Your task to perform on an android device: turn vacation reply on in the gmail app Image 0: 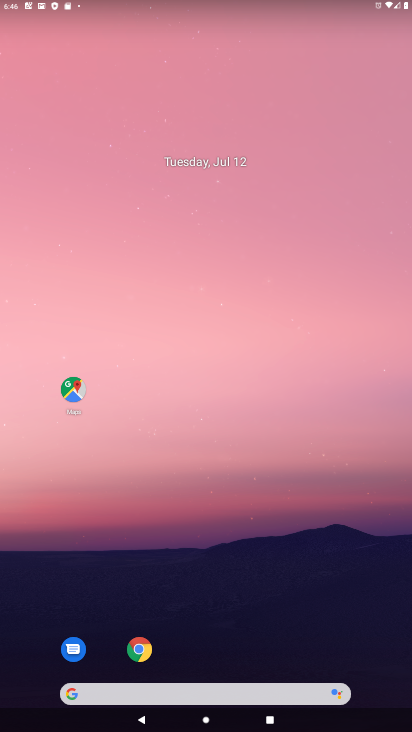
Step 0: drag from (182, 693) to (279, 164)
Your task to perform on an android device: turn vacation reply on in the gmail app Image 1: 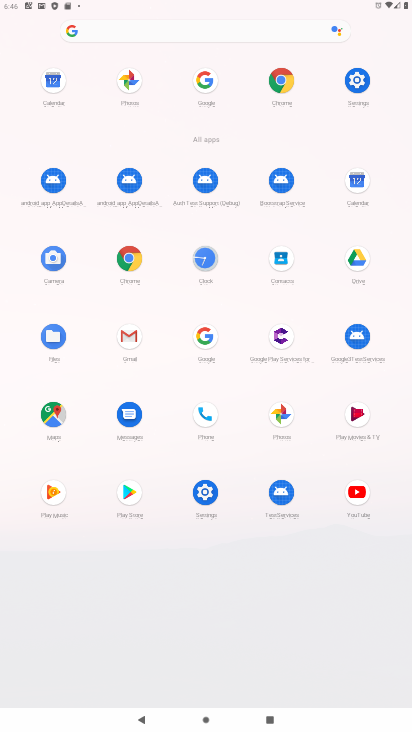
Step 1: click (129, 335)
Your task to perform on an android device: turn vacation reply on in the gmail app Image 2: 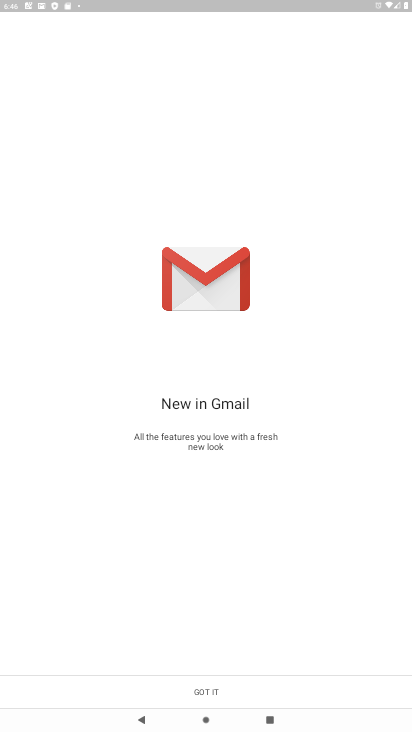
Step 2: click (207, 694)
Your task to perform on an android device: turn vacation reply on in the gmail app Image 3: 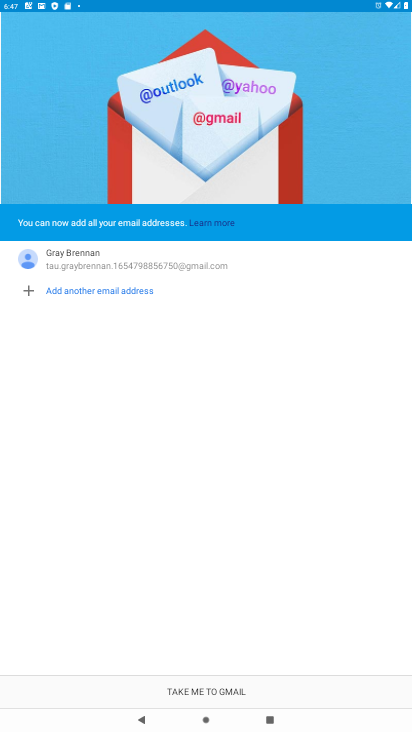
Step 3: click (219, 689)
Your task to perform on an android device: turn vacation reply on in the gmail app Image 4: 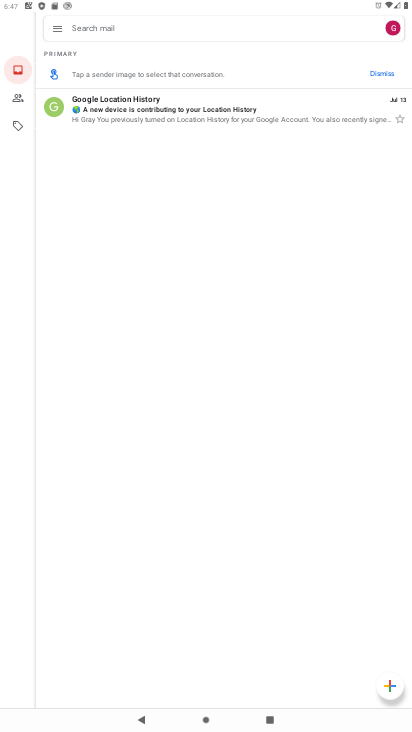
Step 4: click (57, 31)
Your task to perform on an android device: turn vacation reply on in the gmail app Image 5: 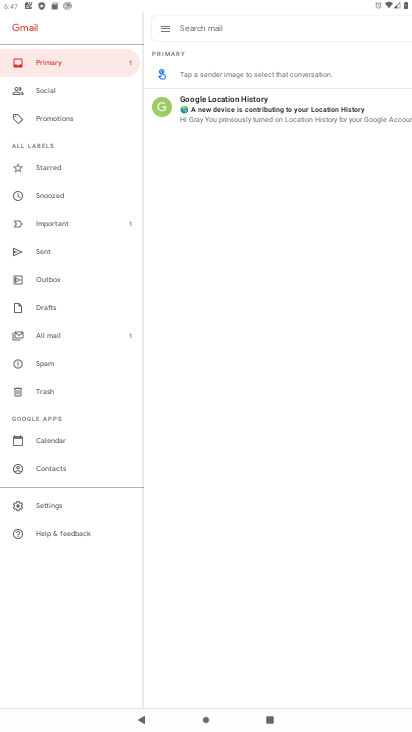
Step 5: click (59, 503)
Your task to perform on an android device: turn vacation reply on in the gmail app Image 6: 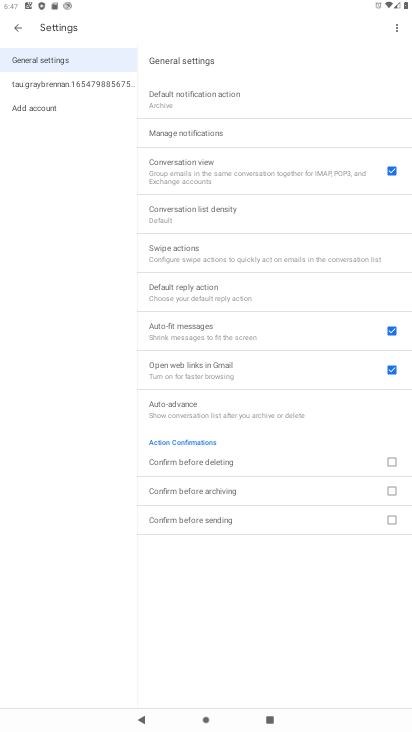
Step 6: click (66, 86)
Your task to perform on an android device: turn vacation reply on in the gmail app Image 7: 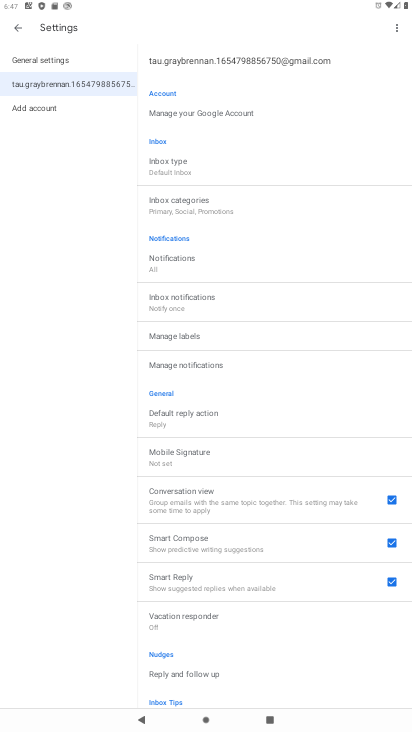
Step 7: click (227, 622)
Your task to perform on an android device: turn vacation reply on in the gmail app Image 8: 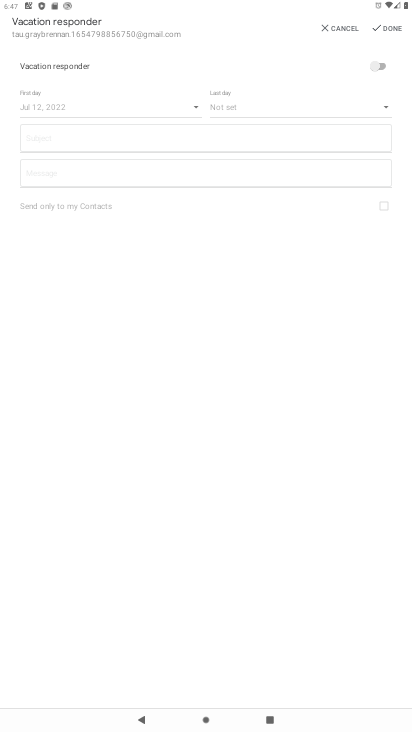
Step 8: click (383, 64)
Your task to perform on an android device: turn vacation reply on in the gmail app Image 9: 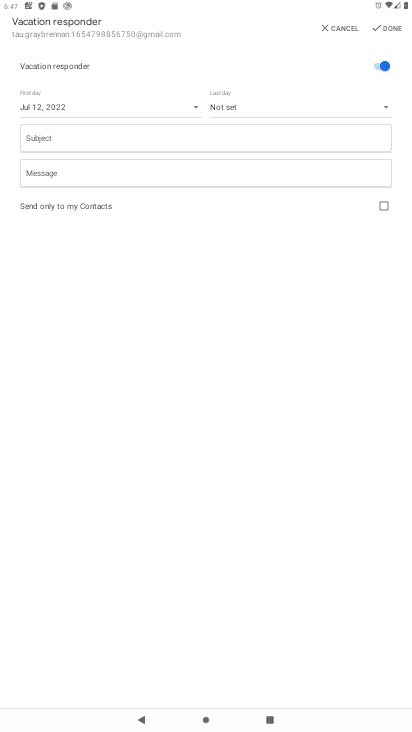
Step 9: task complete